Your task to perform on an android device: Open sound settings Image 0: 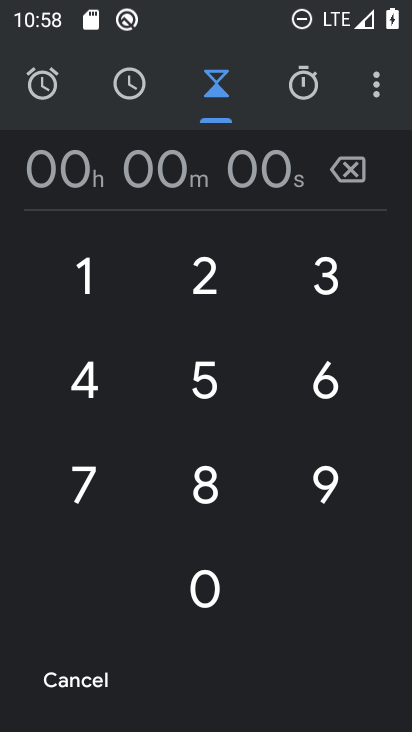
Step 0: press home button
Your task to perform on an android device: Open sound settings Image 1: 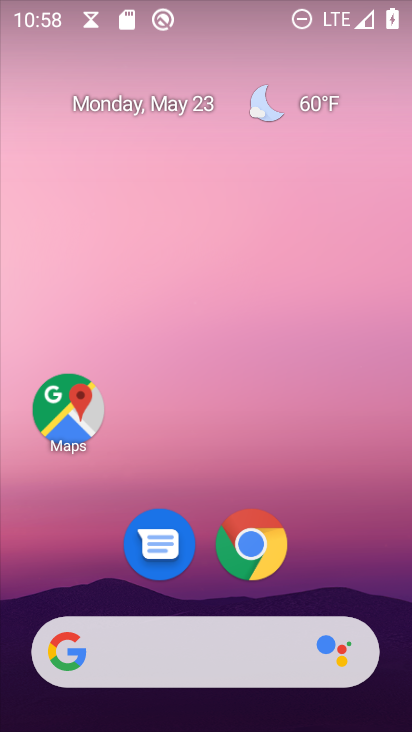
Step 1: drag from (320, 567) to (127, 175)
Your task to perform on an android device: Open sound settings Image 2: 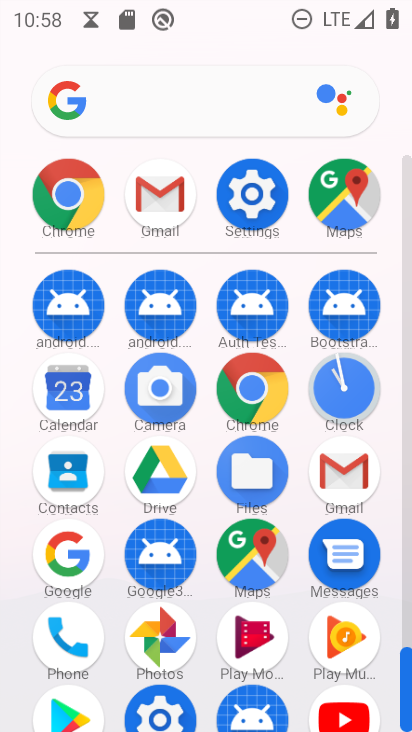
Step 2: click (250, 196)
Your task to perform on an android device: Open sound settings Image 3: 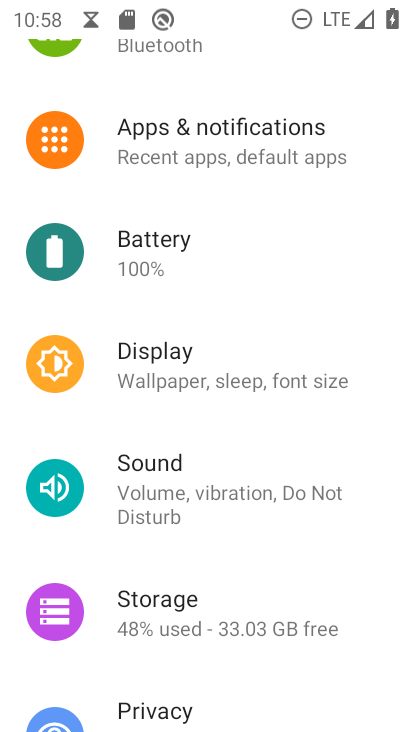
Step 3: click (155, 510)
Your task to perform on an android device: Open sound settings Image 4: 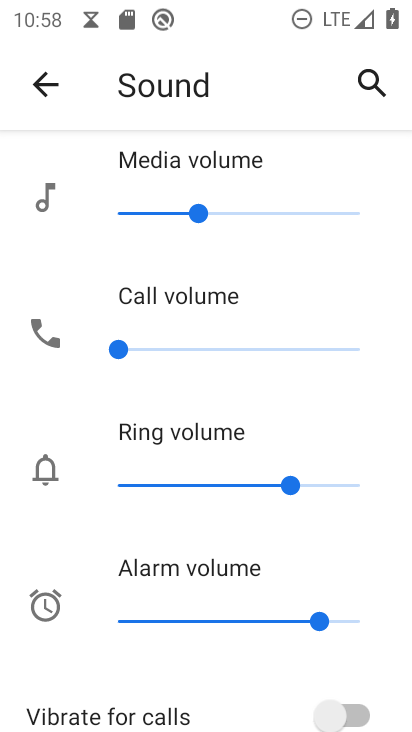
Step 4: drag from (65, 635) to (37, 222)
Your task to perform on an android device: Open sound settings Image 5: 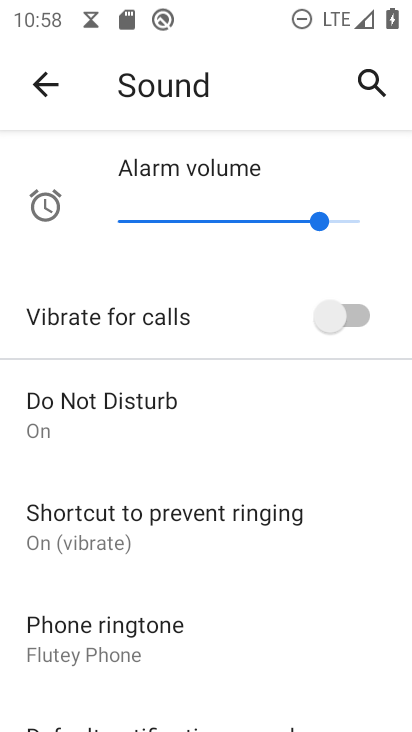
Step 5: drag from (201, 666) to (180, 283)
Your task to perform on an android device: Open sound settings Image 6: 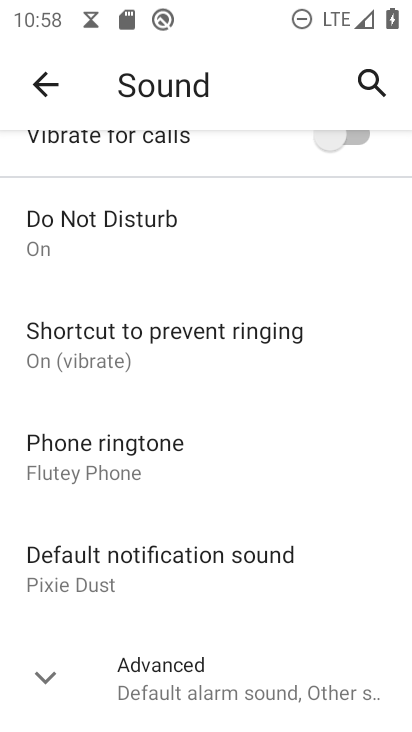
Step 6: click (171, 673)
Your task to perform on an android device: Open sound settings Image 7: 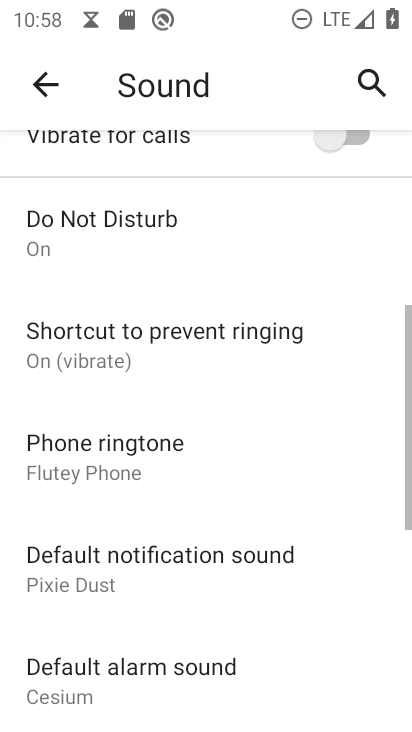
Step 7: drag from (170, 672) to (152, 307)
Your task to perform on an android device: Open sound settings Image 8: 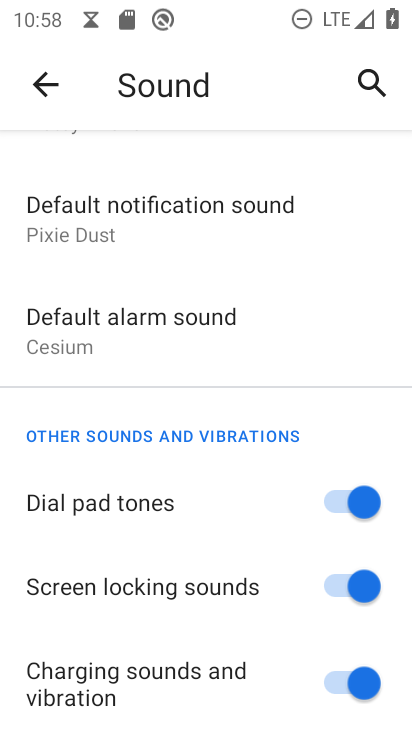
Step 8: drag from (147, 671) to (172, 378)
Your task to perform on an android device: Open sound settings Image 9: 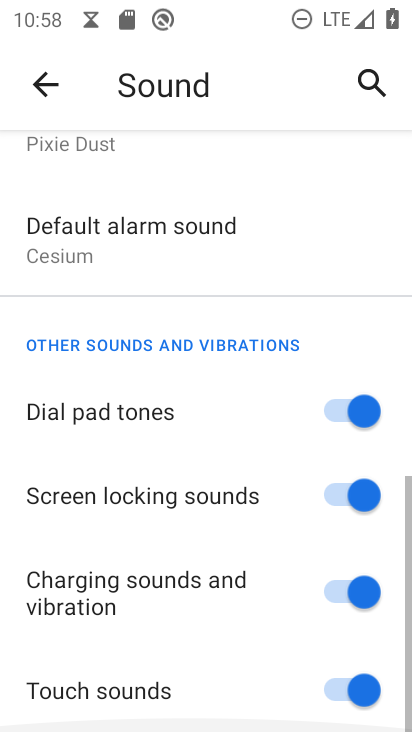
Step 9: click (182, 303)
Your task to perform on an android device: Open sound settings Image 10: 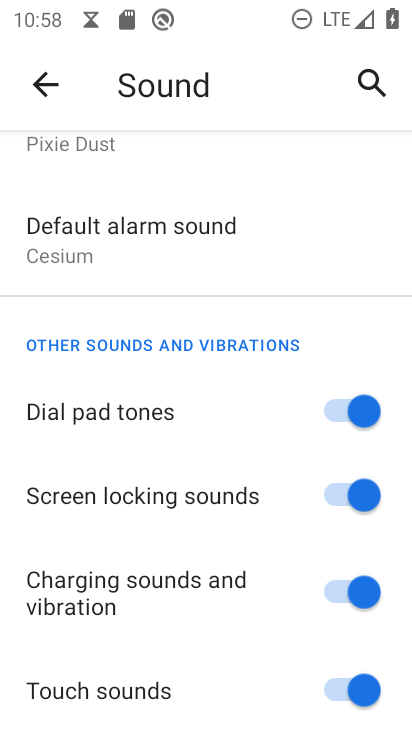
Step 10: task complete